Your task to perform on an android device: Open eBay Image 0: 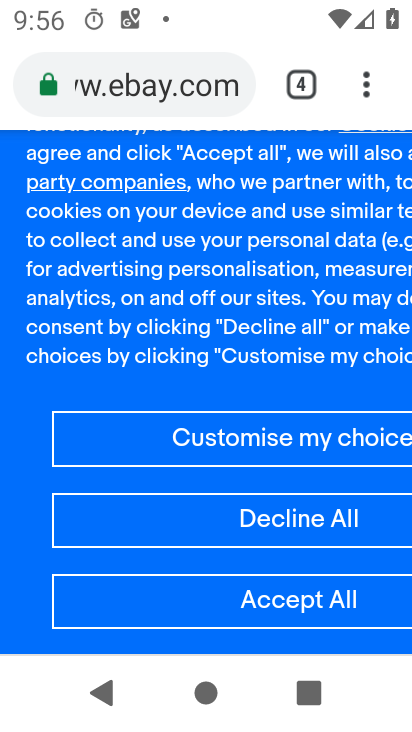
Step 0: press home button
Your task to perform on an android device: Open eBay Image 1: 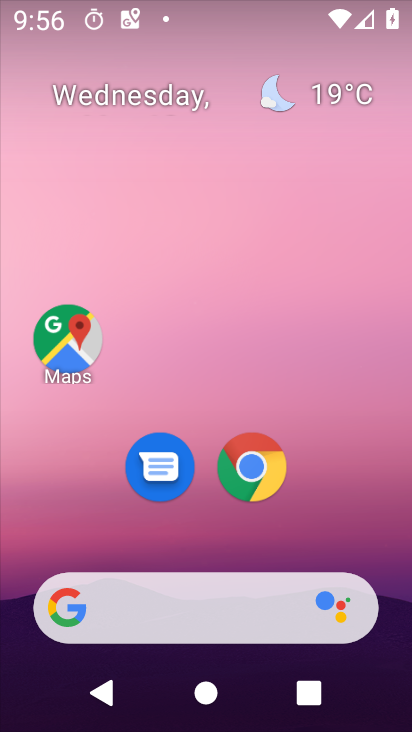
Step 1: click (248, 469)
Your task to perform on an android device: Open eBay Image 2: 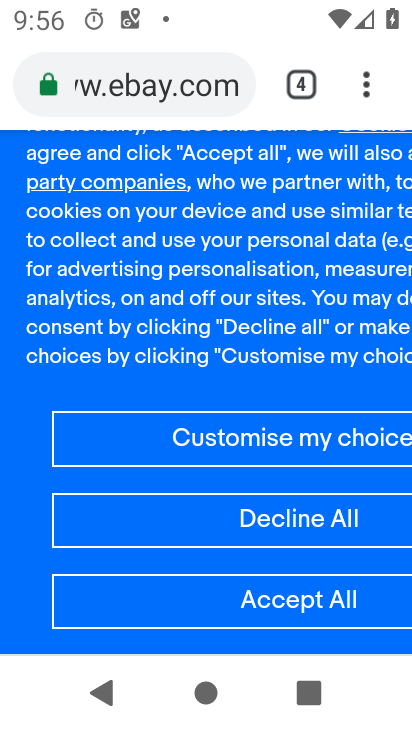
Step 2: task complete